Your task to perform on an android device: What is the recent news? Image 0: 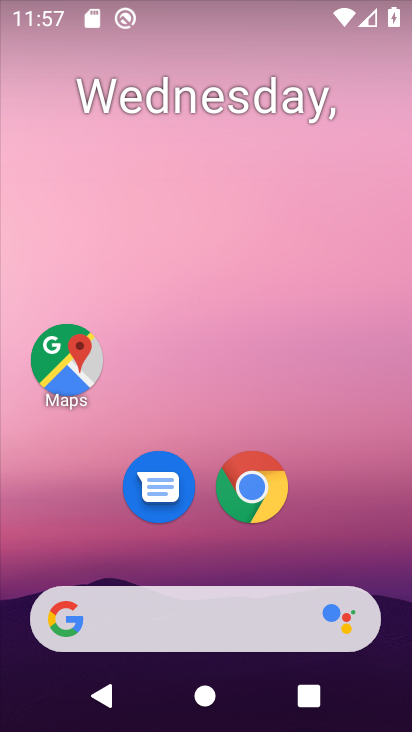
Step 0: drag from (242, 657) to (342, 181)
Your task to perform on an android device: What is the recent news? Image 1: 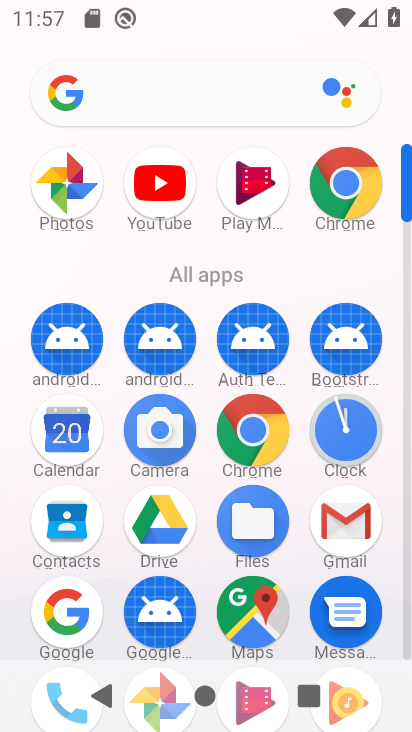
Step 1: click (152, 105)
Your task to perform on an android device: What is the recent news? Image 2: 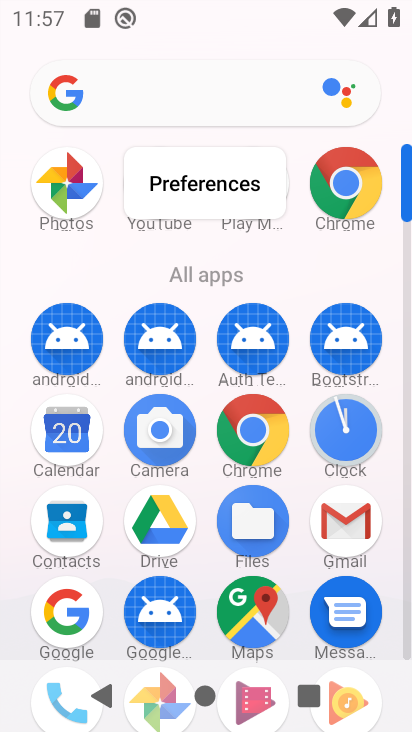
Step 2: click (152, 105)
Your task to perform on an android device: What is the recent news? Image 3: 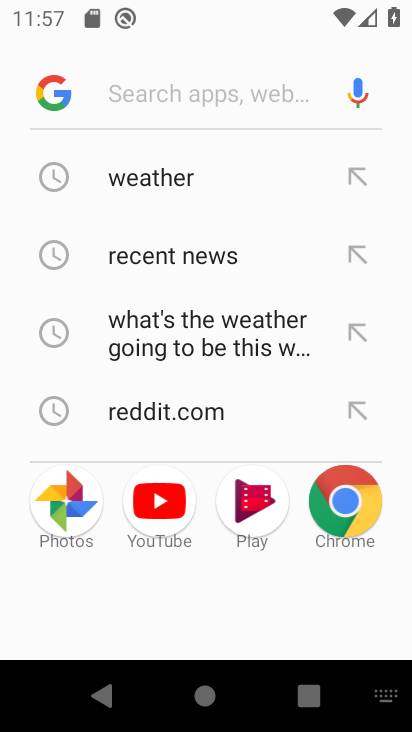
Step 3: click (138, 249)
Your task to perform on an android device: What is the recent news? Image 4: 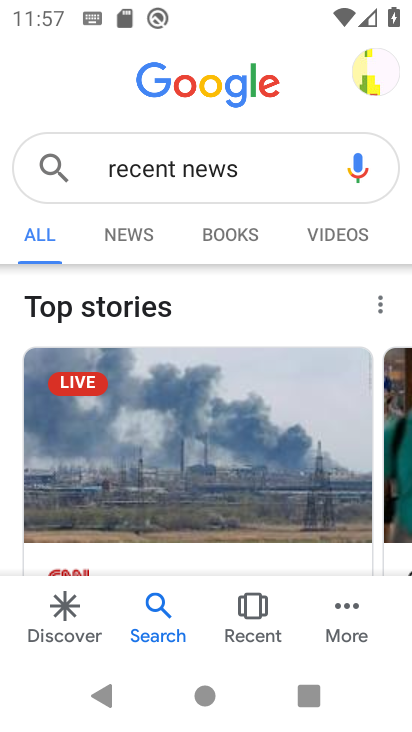
Step 4: task complete